Your task to perform on an android device: turn off wifi Image 0: 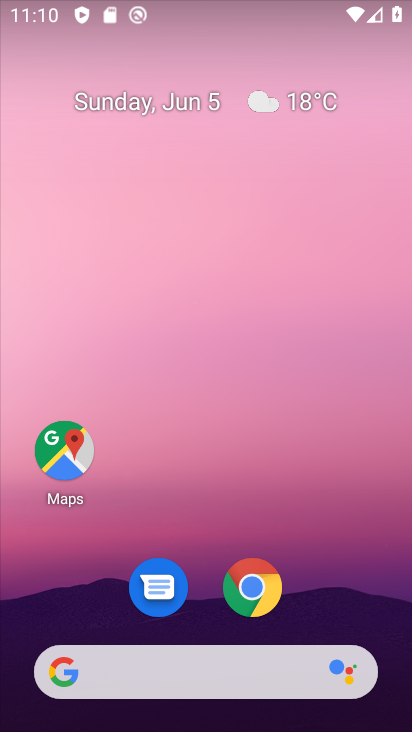
Step 0: drag from (162, 13) to (196, 490)
Your task to perform on an android device: turn off wifi Image 1: 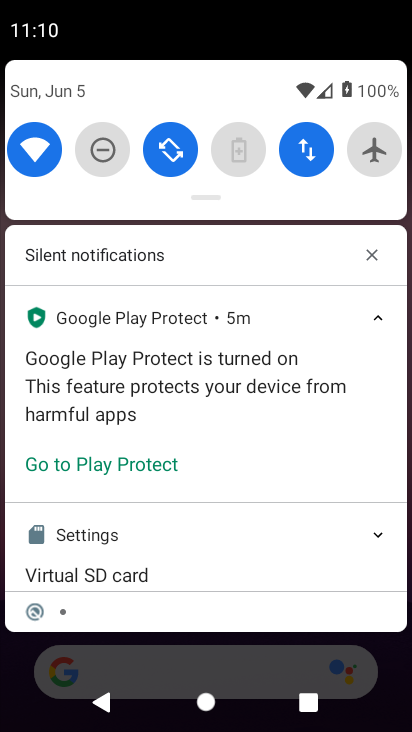
Step 1: click (50, 146)
Your task to perform on an android device: turn off wifi Image 2: 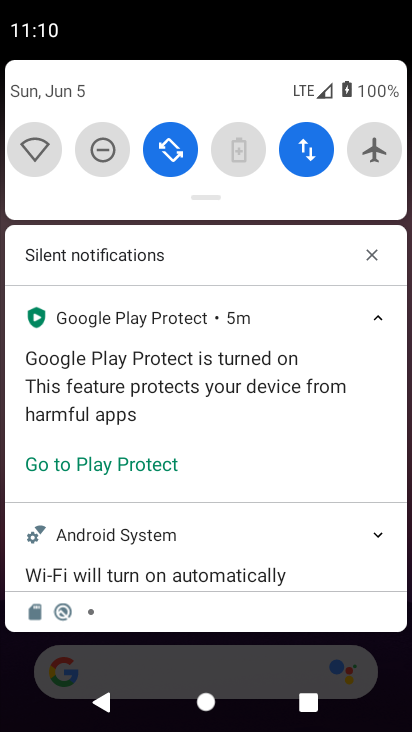
Step 2: task complete